Your task to perform on an android device: see sites visited before in the chrome app Image 0: 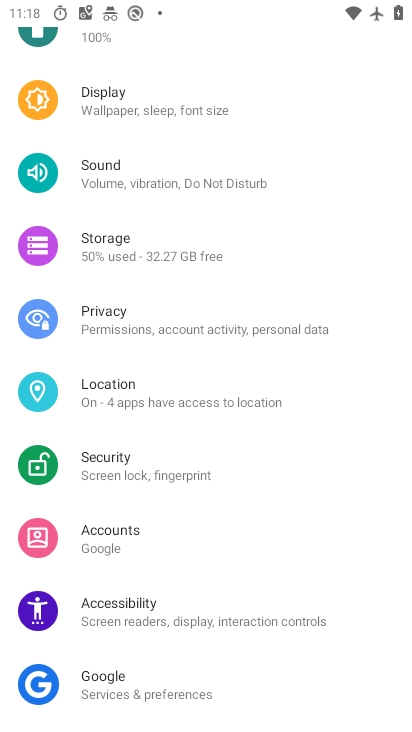
Step 0: press home button
Your task to perform on an android device: see sites visited before in the chrome app Image 1: 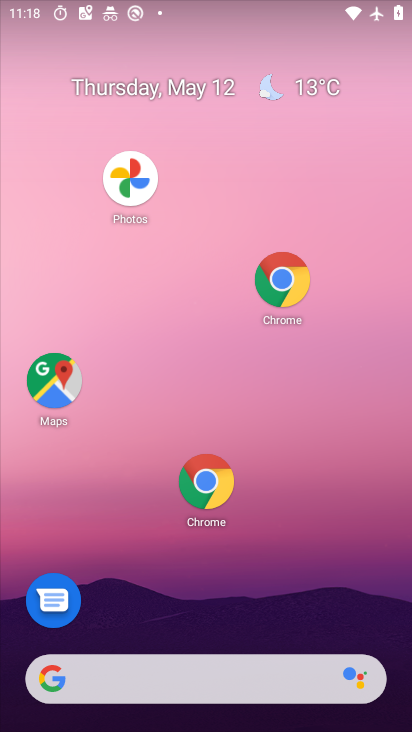
Step 1: drag from (345, 604) to (134, 69)
Your task to perform on an android device: see sites visited before in the chrome app Image 2: 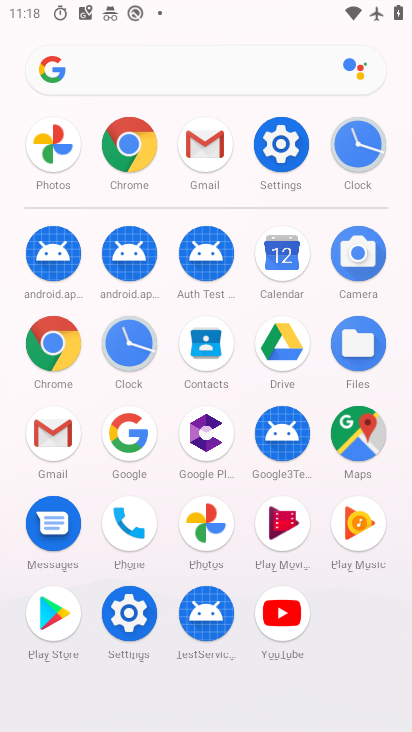
Step 2: click (57, 330)
Your task to perform on an android device: see sites visited before in the chrome app Image 3: 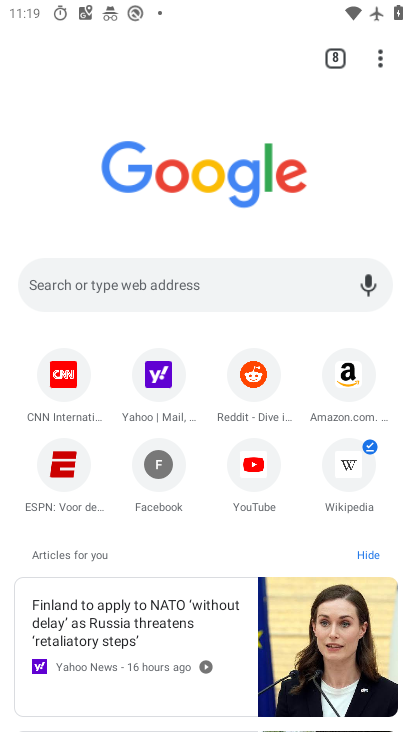
Step 3: drag from (380, 50) to (170, 280)
Your task to perform on an android device: see sites visited before in the chrome app Image 4: 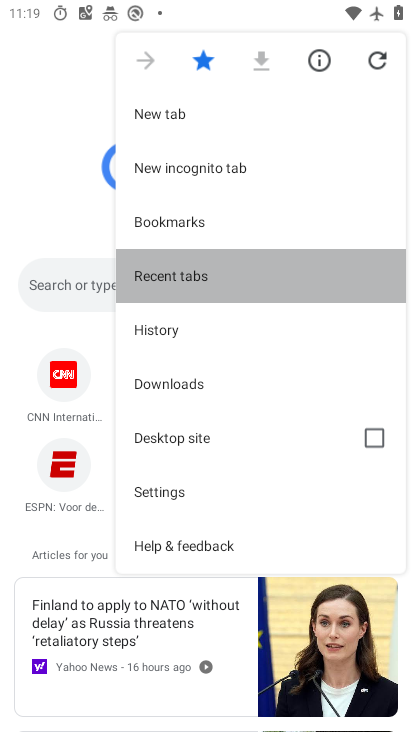
Step 4: click (171, 279)
Your task to perform on an android device: see sites visited before in the chrome app Image 5: 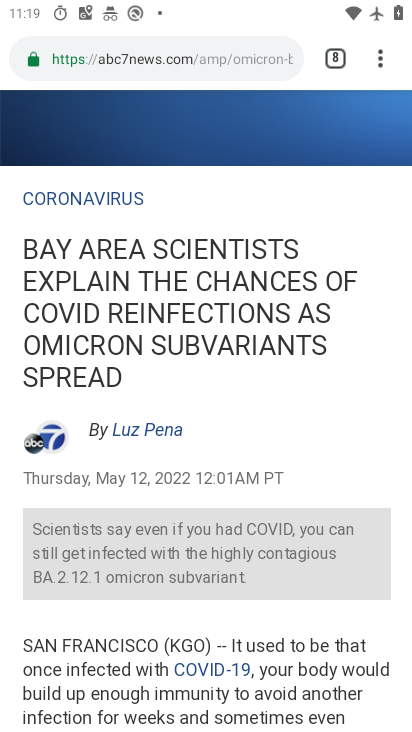
Step 5: task complete